Your task to perform on an android device: toggle sleep mode Image 0: 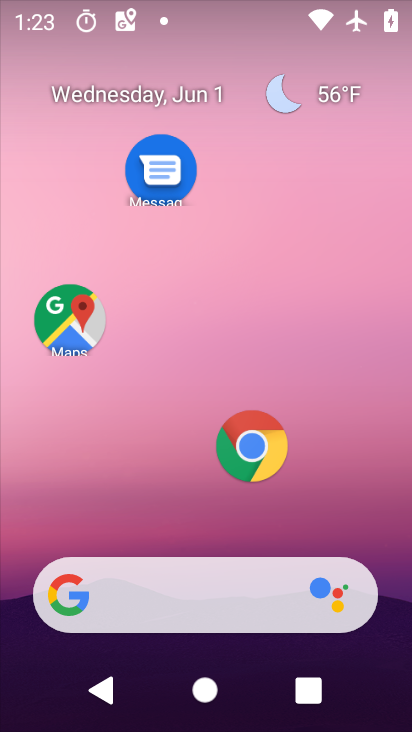
Step 0: task complete